Your task to perform on an android device: Go to Google Image 0: 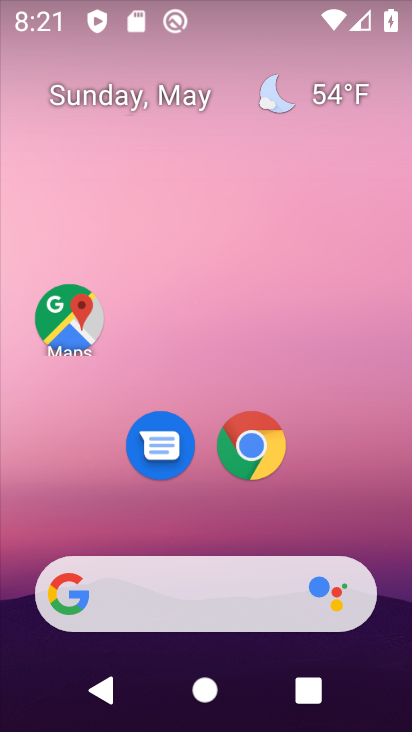
Step 0: drag from (331, 518) to (284, 123)
Your task to perform on an android device: Go to Google Image 1: 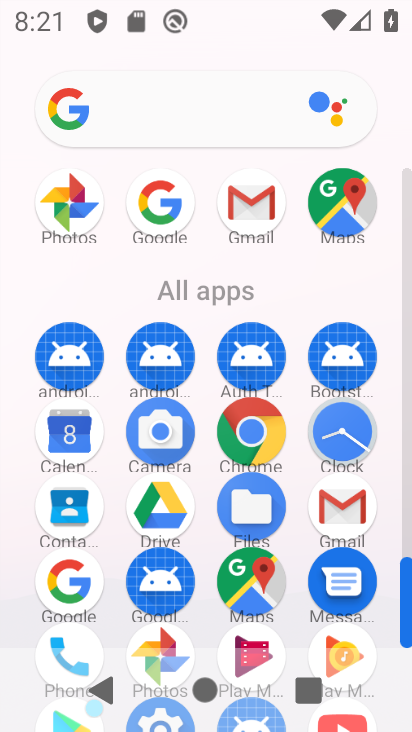
Step 1: click (181, 202)
Your task to perform on an android device: Go to Google Image 2: 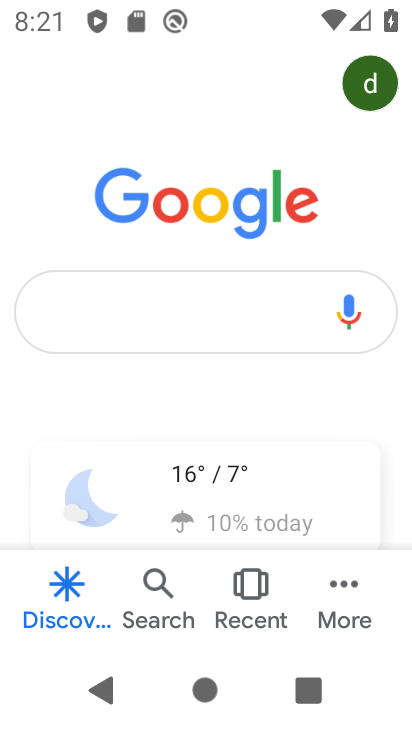
Step 2: task complete